Your task to perform on an android device: toggle location history Image 0: 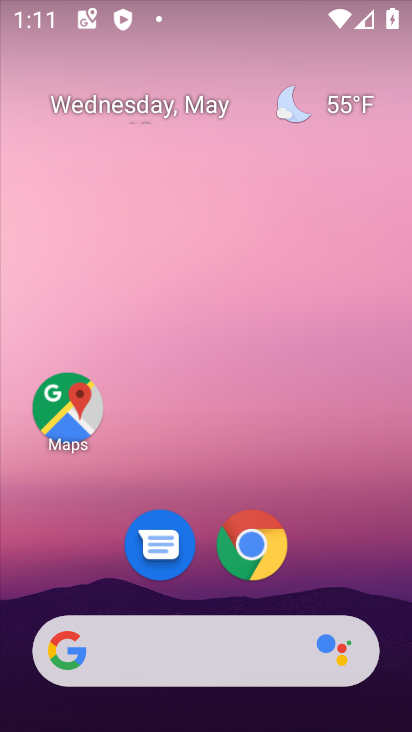
Step 0: drag from (367, 570) to (340, 36)
Your task to perform on an android device: toggle location history Image 1: 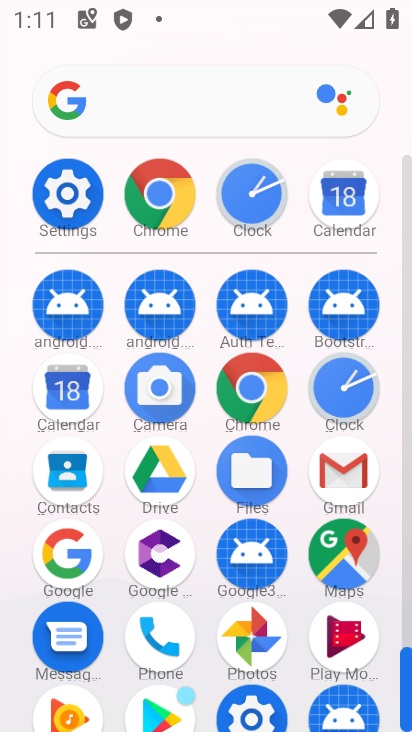
Step 1: drag from (299, 162) to (290, 46)
Your task to perform on an android device: toggle location history Image 2: 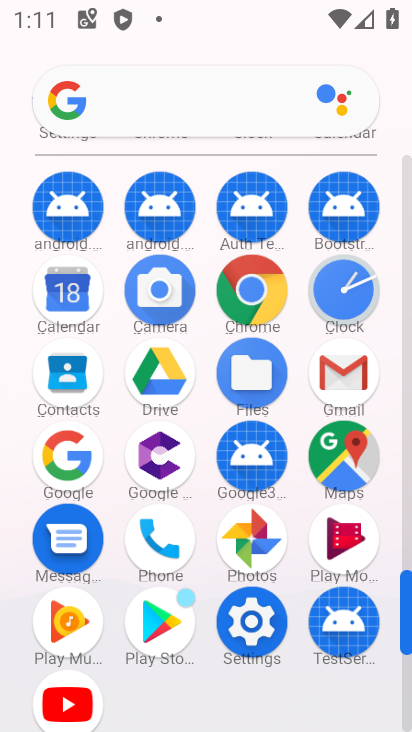
Step 2: click (257, 636)
Your task to perform on an android device: toggle location history Image 3: 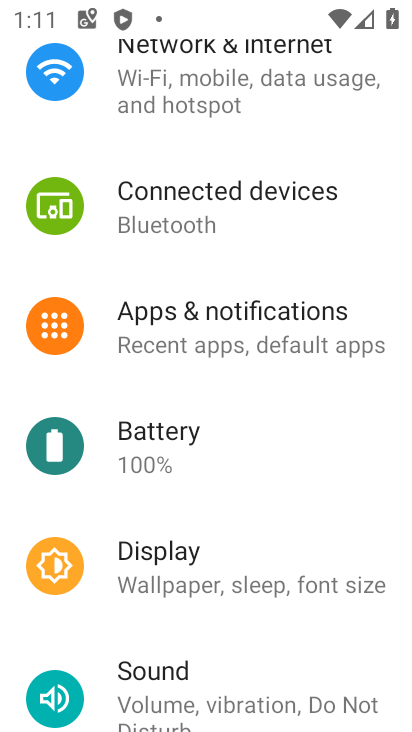
Step 3: drag from (270, 621) to (237, 234)
Your task to perform on an android device: toggle location history Image 4: 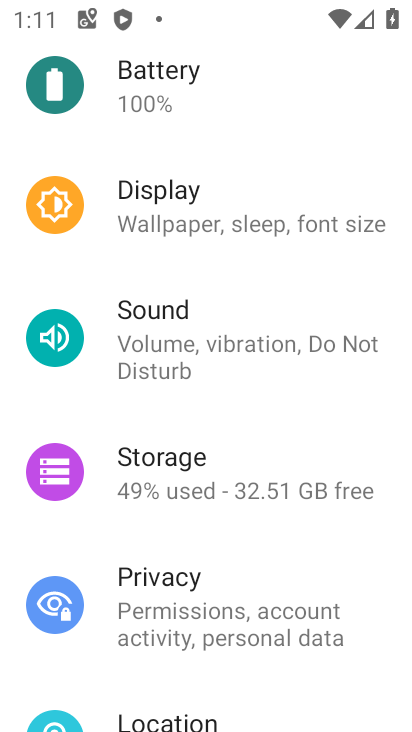
Step 4: drag from (238, 678) to (198, 400)
Your task to perform on an android device: toggle location history Image 5: 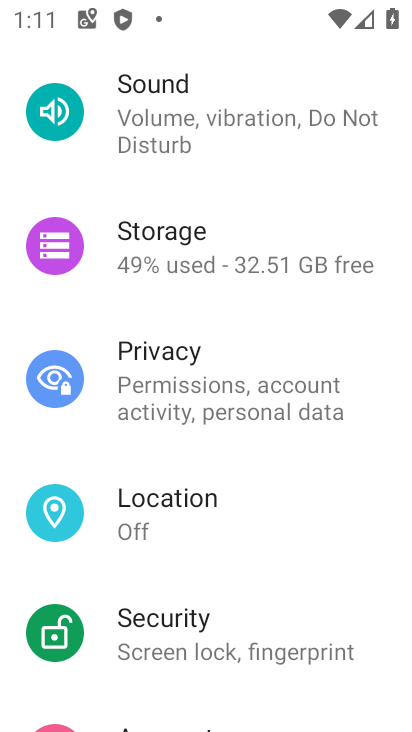
Step 5: click (195, 500)
Your task to perform on an android device: toggle location history Image 6: 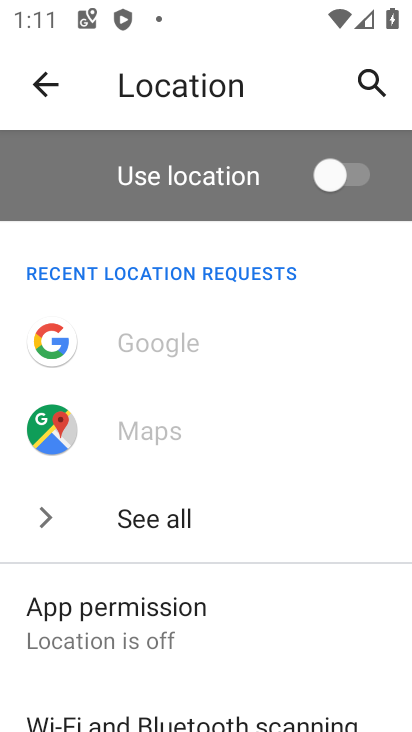
Step 6: drag from (207, 580) to (181, 230)
Your task to perform on an android device: toggle location history Image 7: 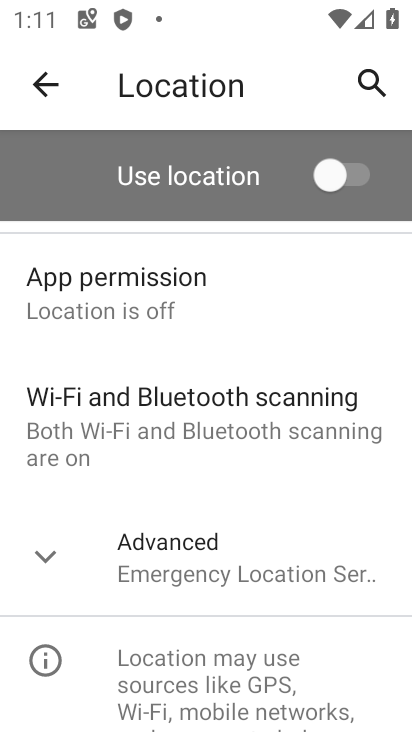
Step 7: click (195, 565)
Your task to perform on an android device: toggle location history Image 8: 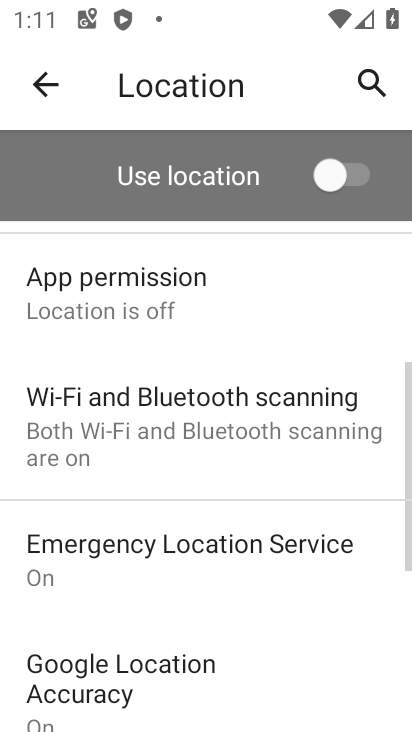
Step 8: drag from (326, 610) to (296, 269)
Your task to perform on an android device: toggle location history Image 9: 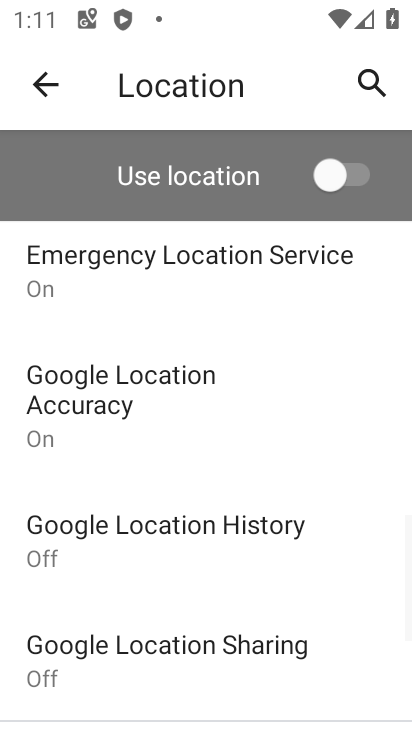
Step 9: click (260, 526)
Your task to perform on an android device: toggle location history Image 10: 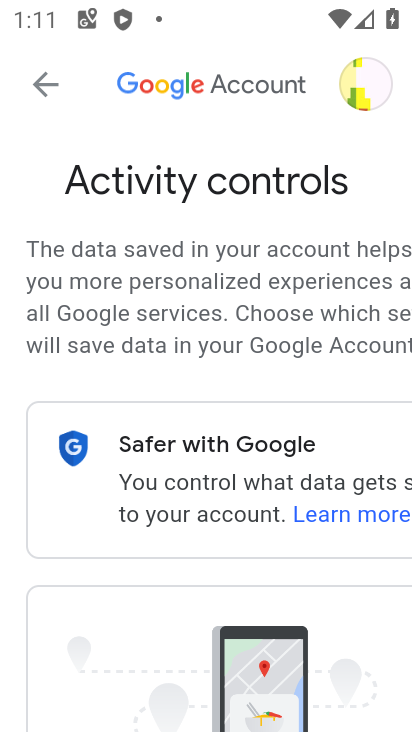
Step 10: drag from (319, 569) to (343, 86)
Your task to perform on an android device: toggle location history Image 11: 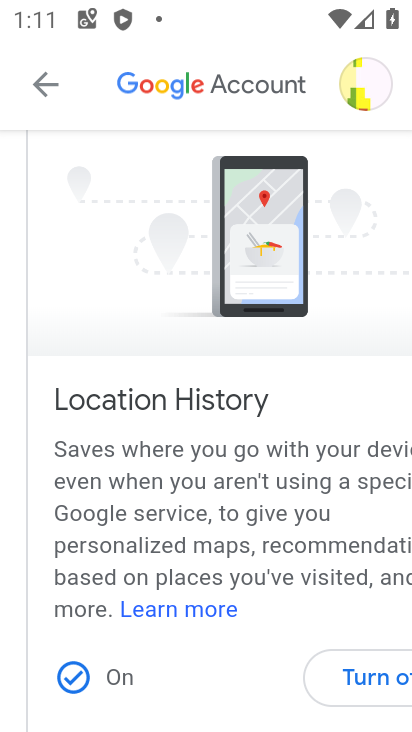
Step 11: click (353, 684)
Your task to perform on an android device: toggle location history Image 12: 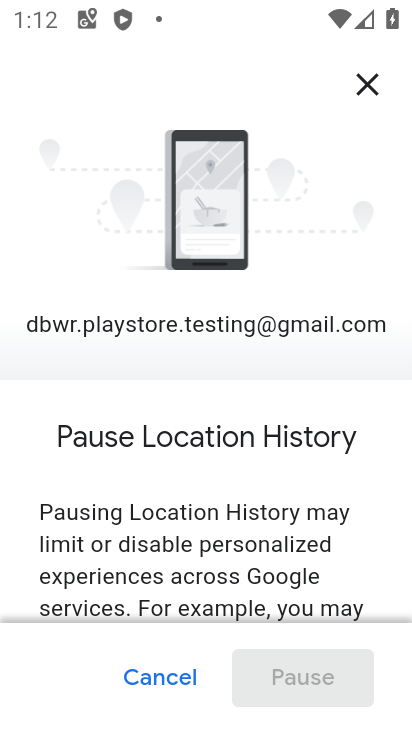
Step 12: drag from (277, 608) to (222, 121)
Your task to perform on an android device: toggle location history Image 13: 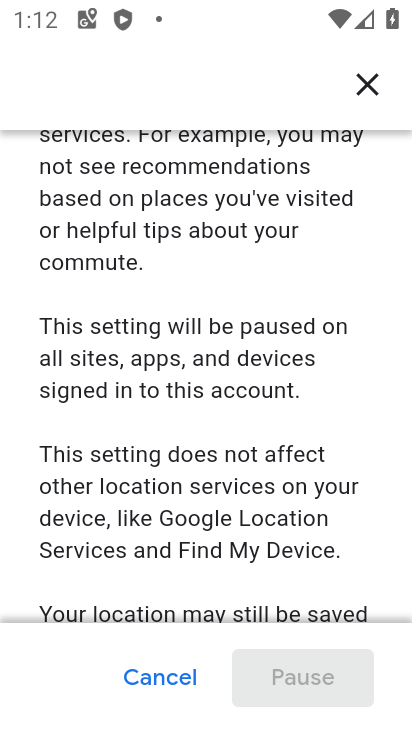
Step 13: drag from (274, 533) to (256, 176)
Your task to perform on an android device: toggle location history Image 14: 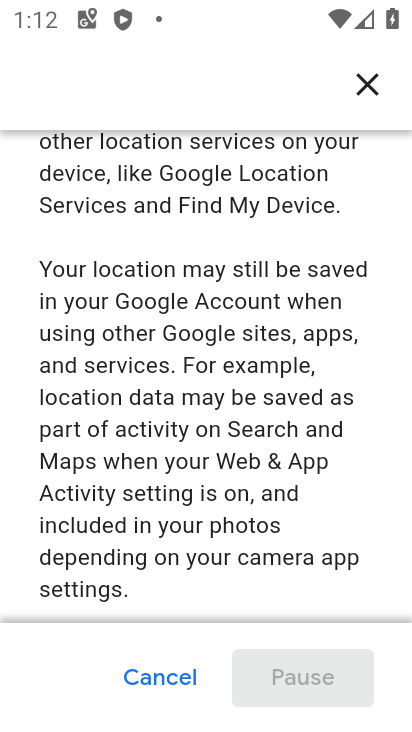
Step 14: drag from (269, 526) to (256, 105)
Your task to perform on an android device: toggle location history Image 15: 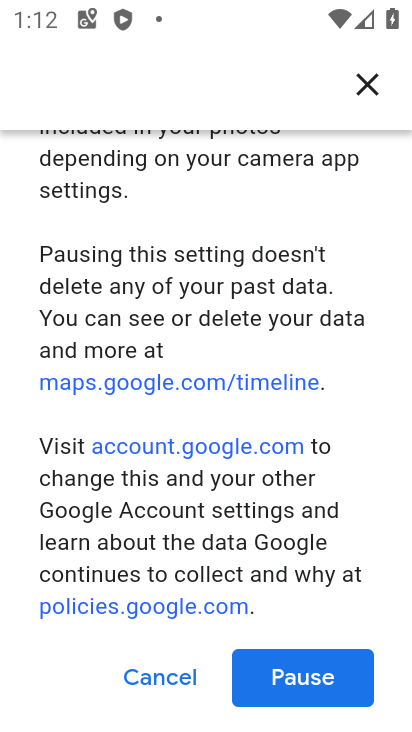
Step 15: click (300, 658)
Your task to perform on an android device: toggle location history Image 16: 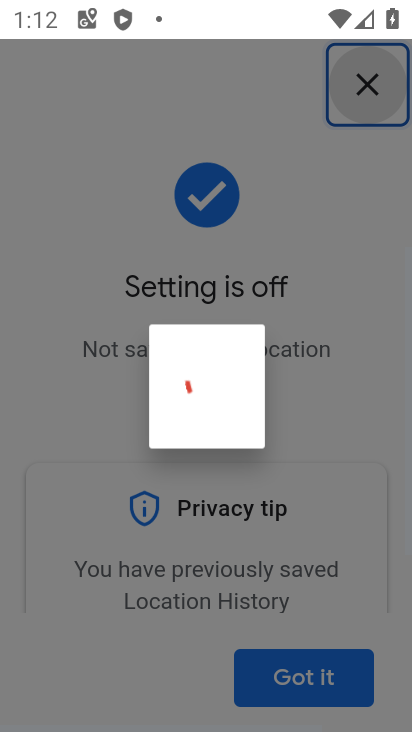
Step 16: click (306, 680)
Your task to perform on an android device: toggle location history Image 17: 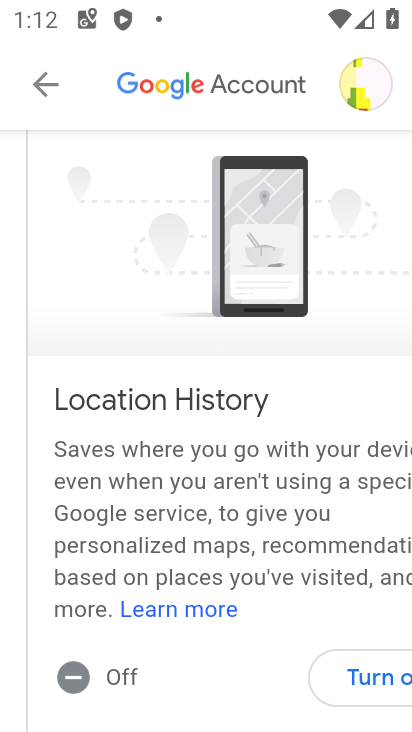
Step 17: task complete